Your task to perform on an android device: Go to Yahoo.com Image 0: 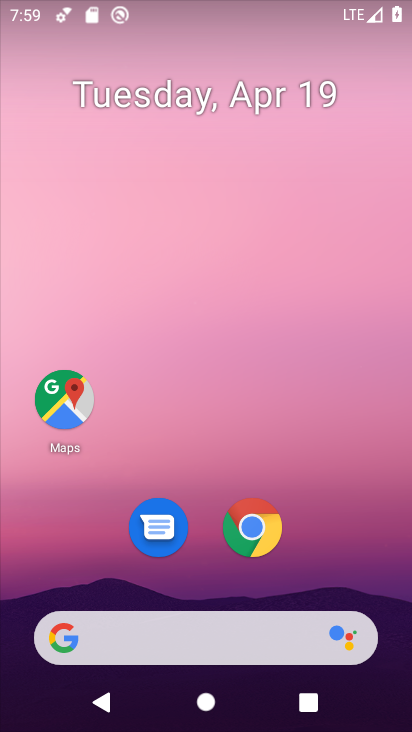
Step 0: click (248, 532)
Your task to perform on an android device: Go to Yahoo.com Image 1: 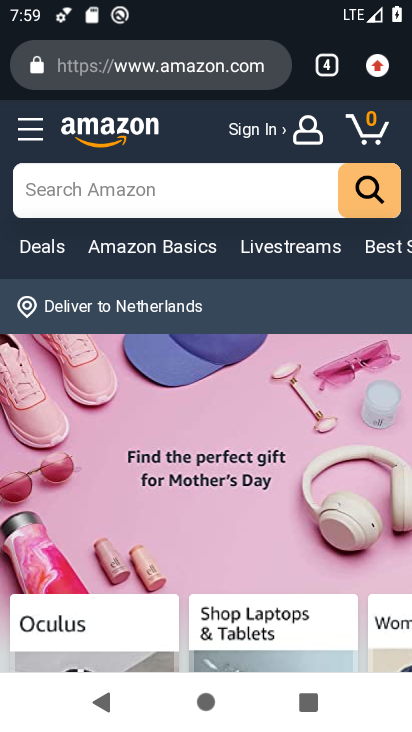
Step 1: click (331, 69)
Your task to perform on an android device: Go to Yahoo.com Image 2: 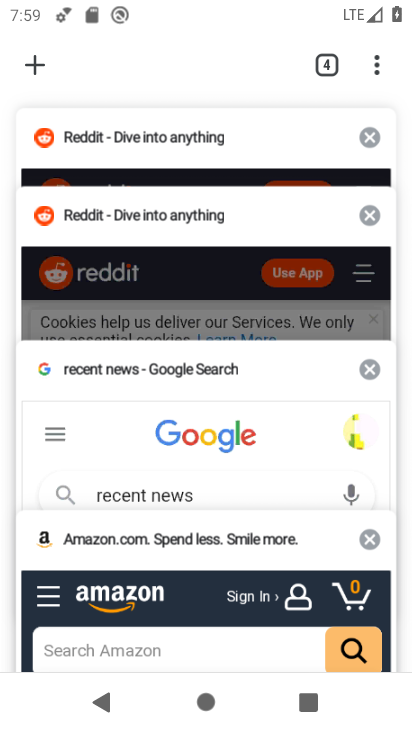
Step 2: click (39, 71)
Your task to perform on an android device: Go to Yahoo.com Image 3: 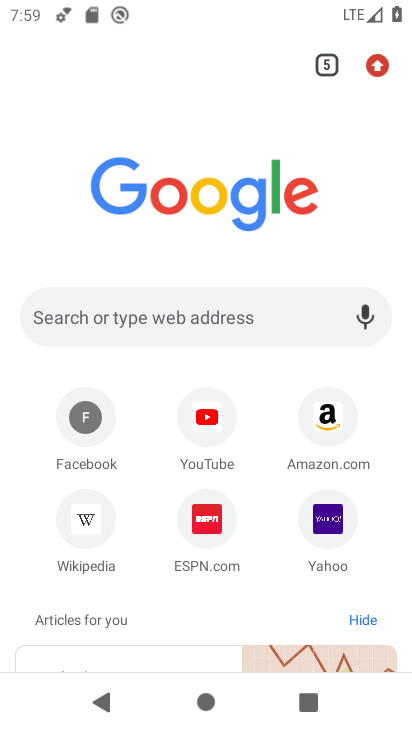
Step 3: click (331, 516)
Your task to perform on an android device: Go to Yahoo.com Image 4: 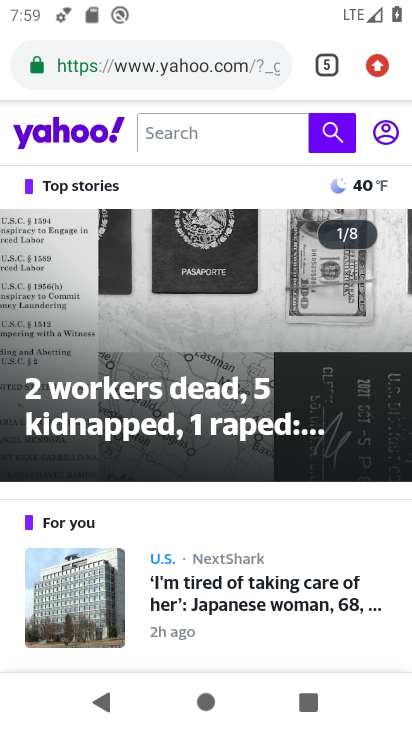
Step 4: task complete